Your task to perform on an android device: check out phone information Image 0: 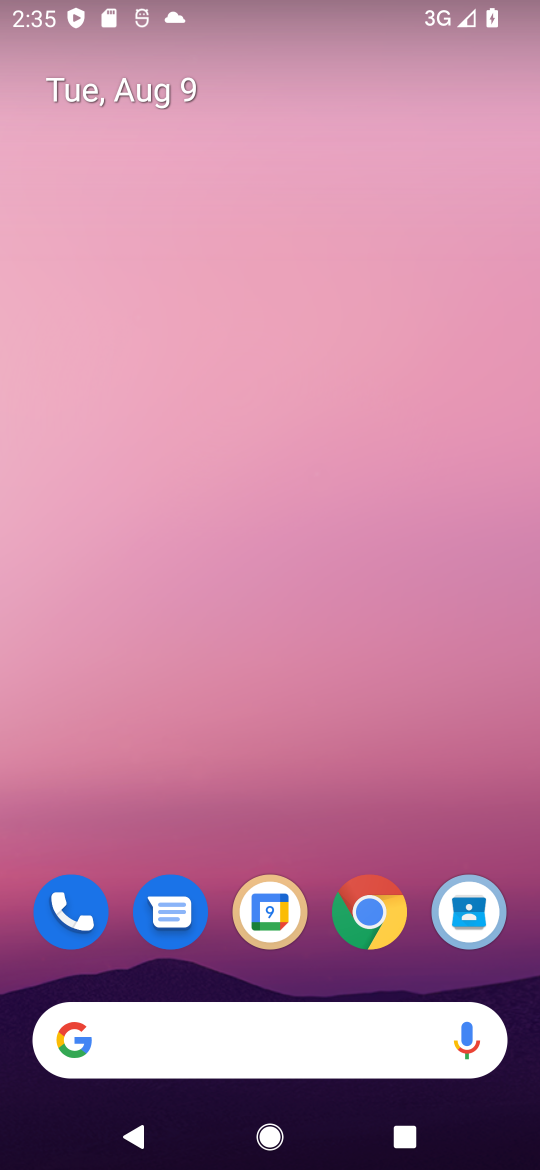
Step 0: drag from (280, 810) to (254, 101)
Your task to perform on an android device: check out phone information Image 1: 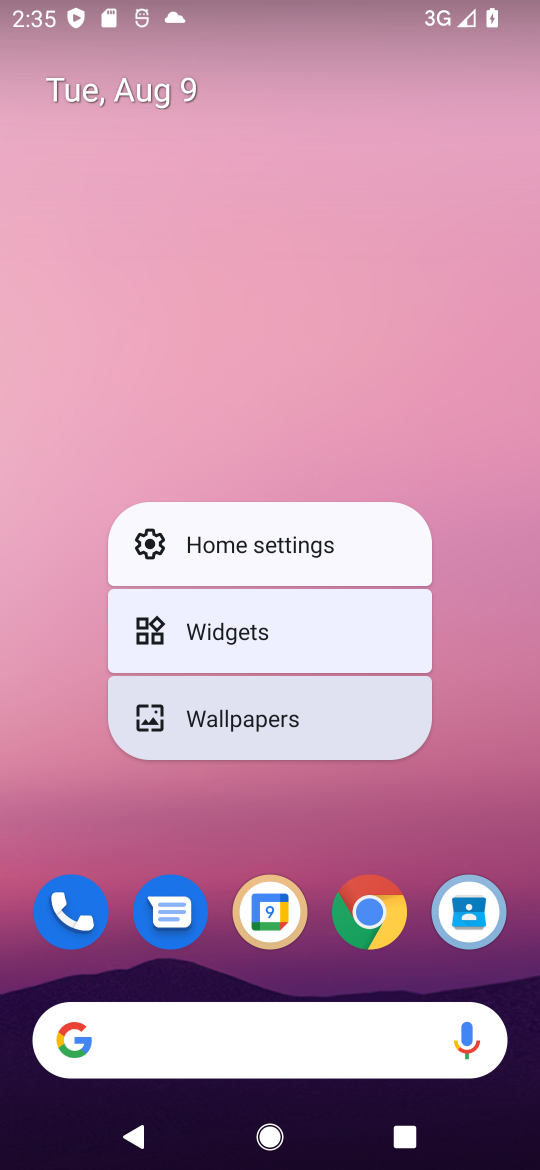
Step 1: click (323, 815)
Your task to perform on an android device: check out phone information Image 2: 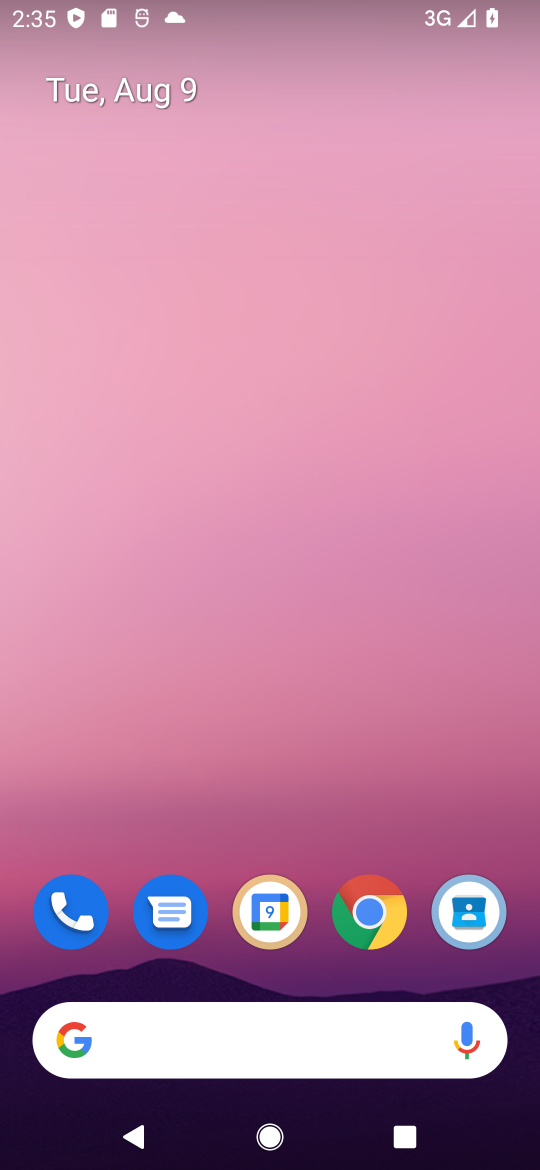
Step 2: drag from (323, 815) to (348, 26)
Your task to perform on an android device: check out phone information Image 3: 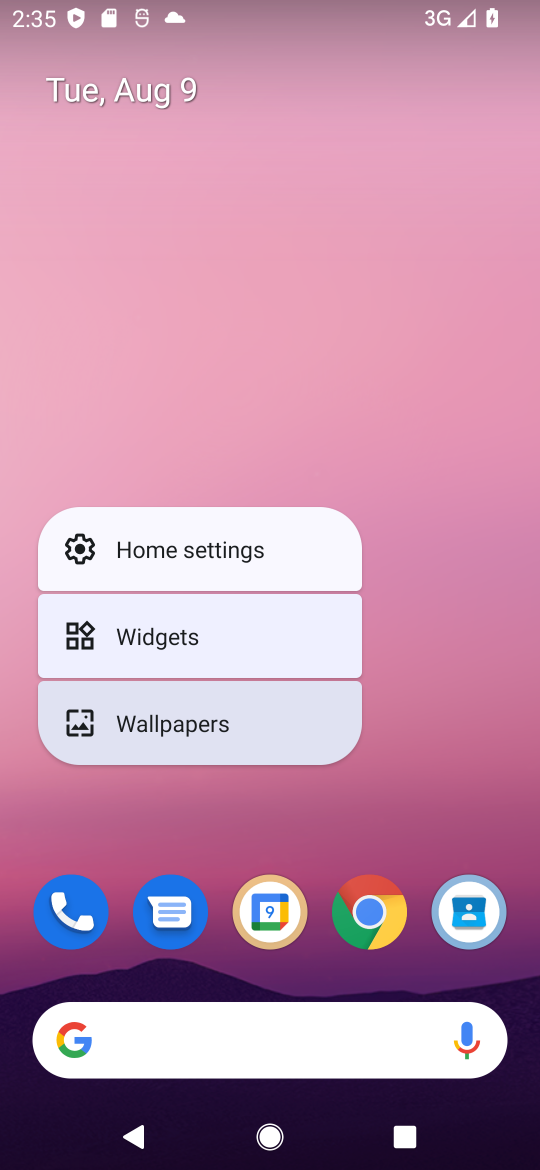
Step 3: click (329, 260)
Your task to perform on an android device: check out phone information Image 4: 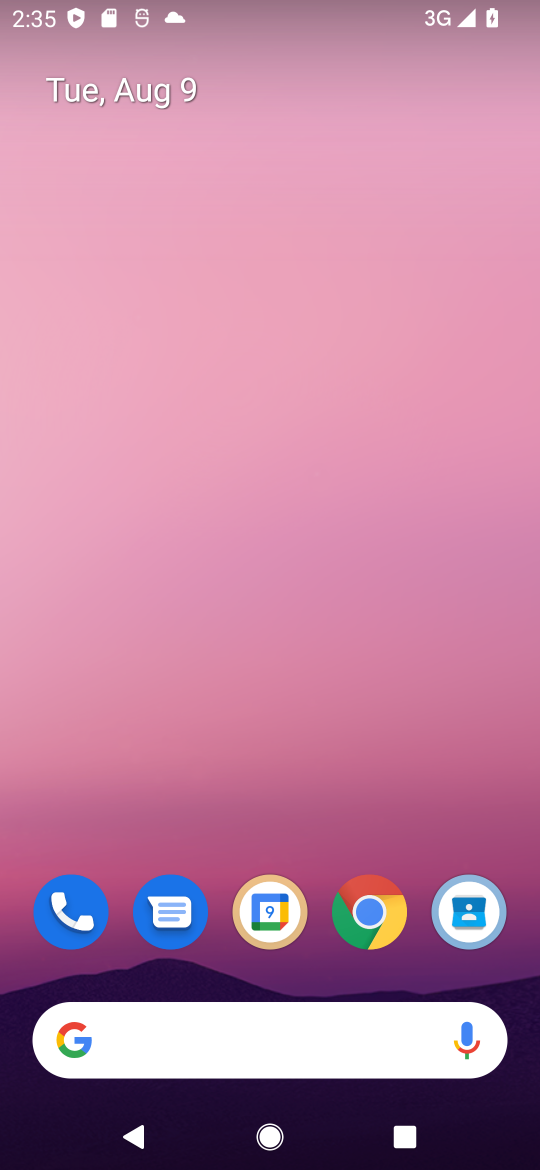
Step 4: drag from (313, 970) to (246, 0)
Your task to perform on an android device: check out phone information Image 5: 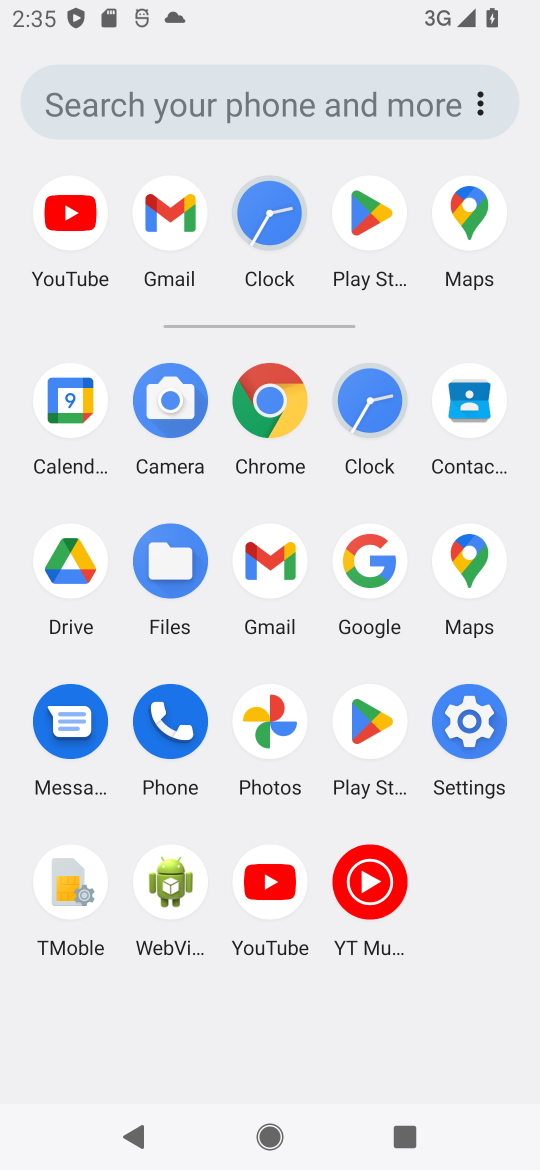
Step 5: click (464, 718)
Your task to perform on an android device: check out phone information Image 6: 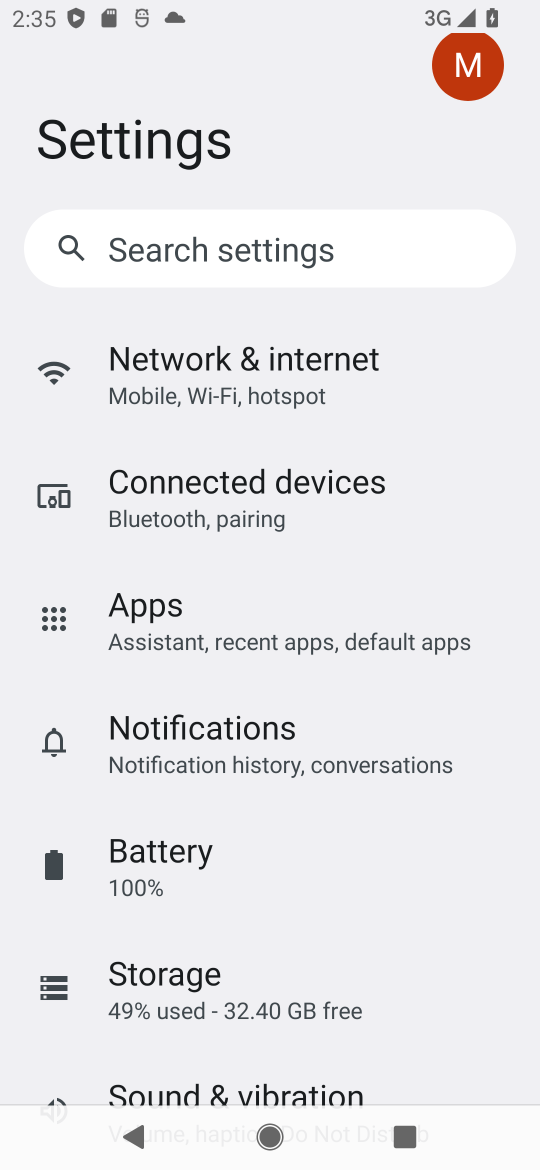
Step 6: drag from (421, 1067) to (397, 491)
Your task to perform on an android device: check out phone information Image 7: 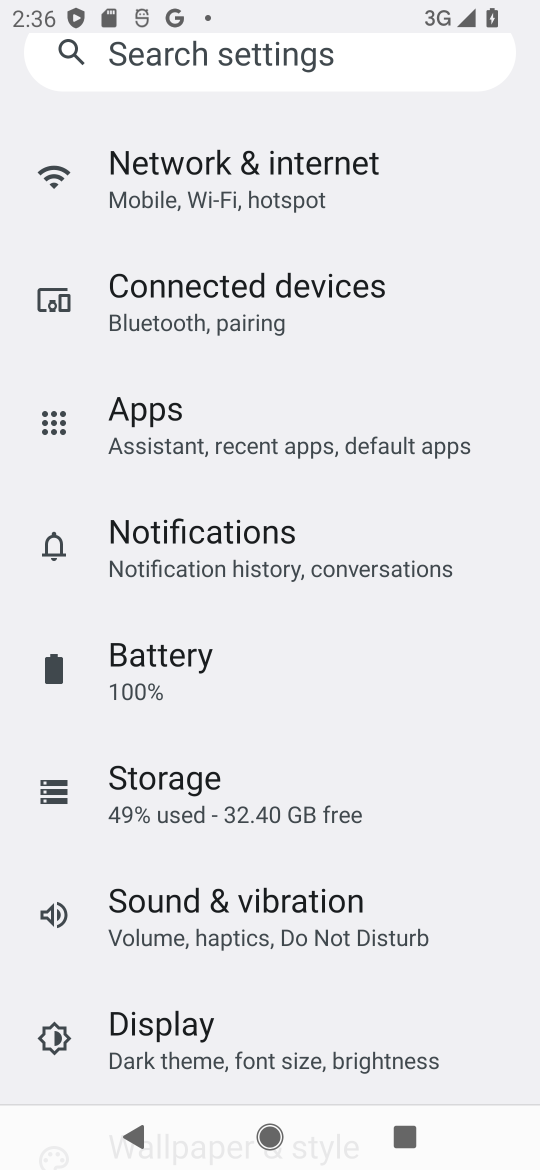
Step 7: drag from (261, 968) to (282, 268)
Your task to perform on an android device: check out phone information Image 8: 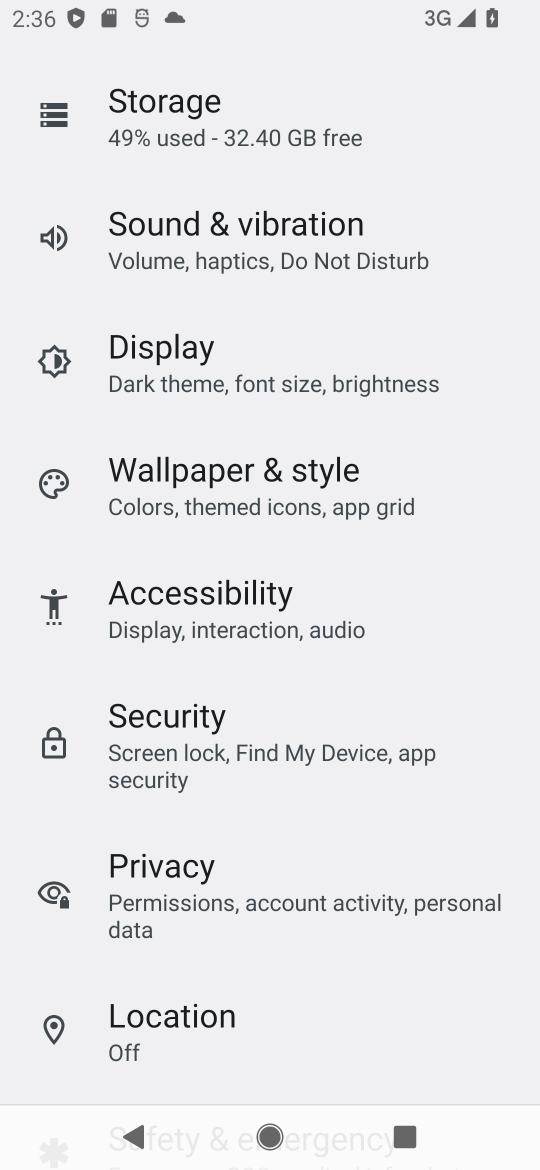
Step 8: drag from (329, 960) to (326, 384)
Your task to perform on an android device: check out phone information Image 9: 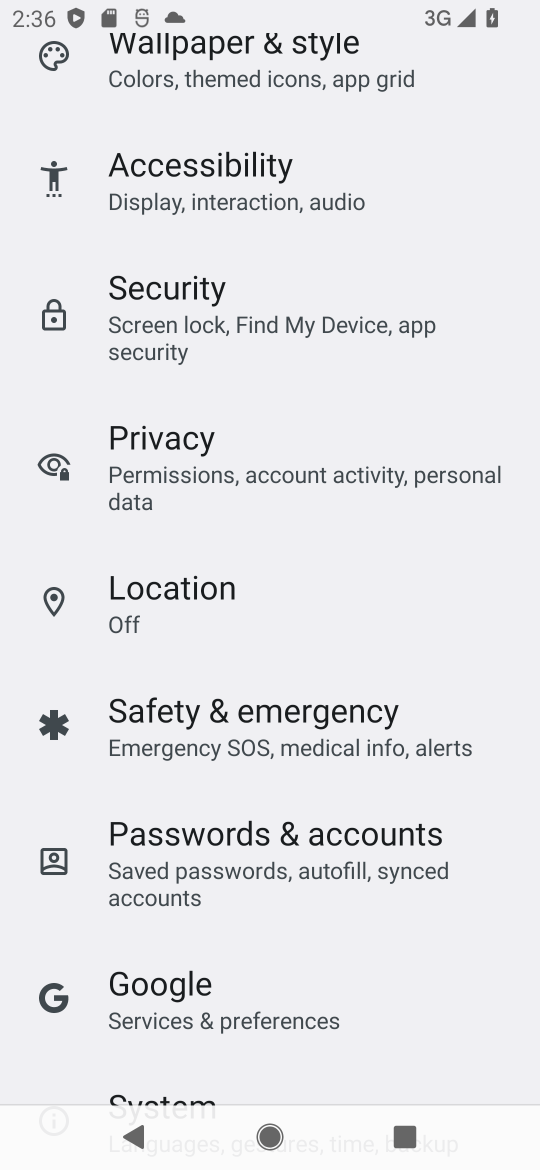
Step 9: drag from (365, 955) to (358, 182)
Your task to perform on an android device: check out phone information Image 10: 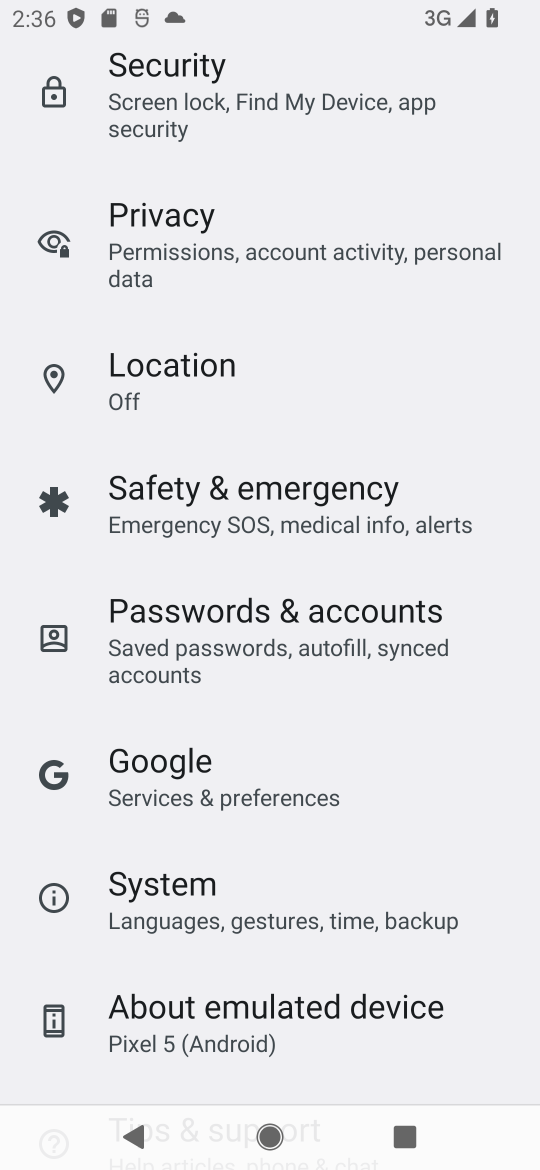
Step 10: click (289, 992)
Your task to perform on an android device: check out phone information Image 11: 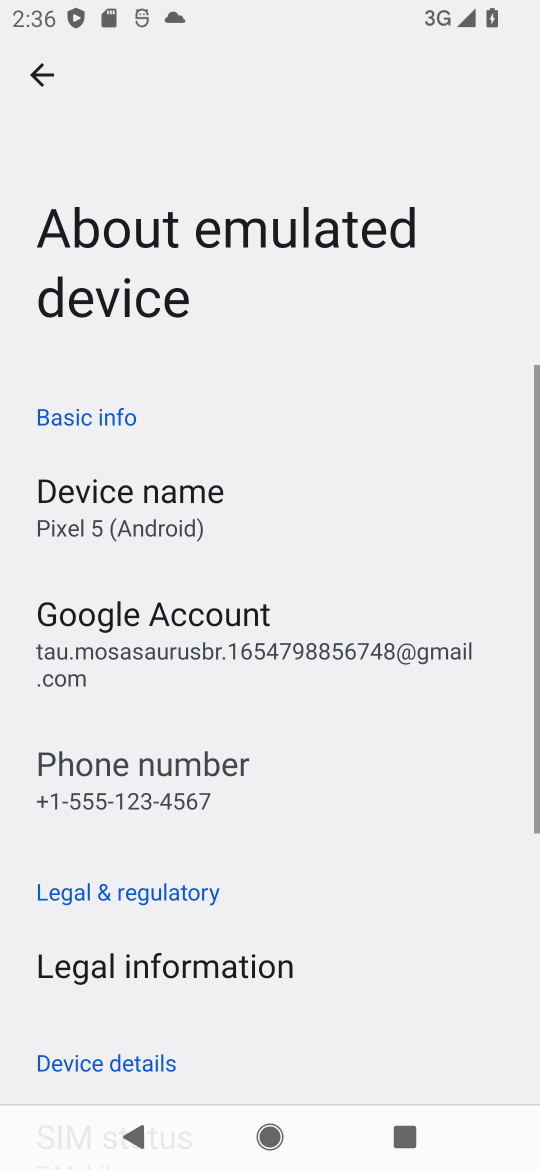
Step 11: task complete